Your task to perform on an android device: find which apps use the phone's location Image 0: 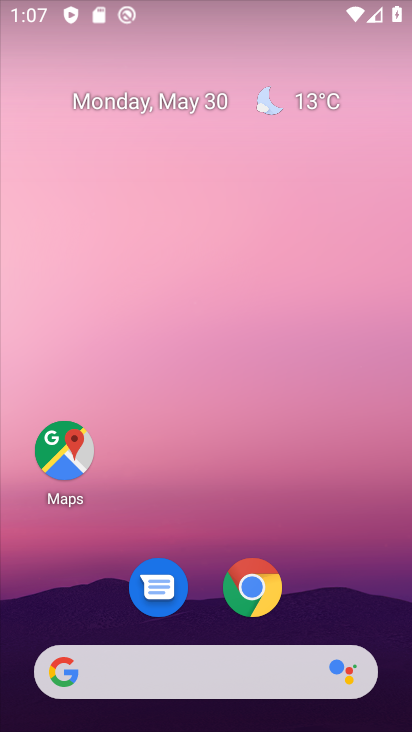
Step 0: drag from (273, 359) to (184, 0)
Your task to perform on an android device: find which apps use the phone's location Image 1: 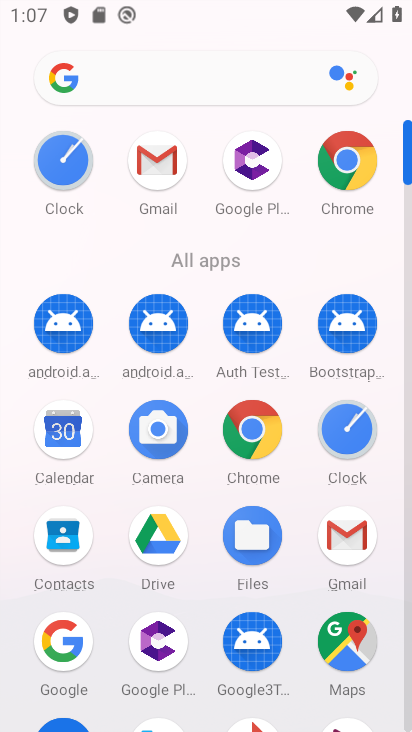
Step 1: drag from (127, 653) to (202, 155)
Your task to perform on an android device: find which apps use the phone's location Image 2: 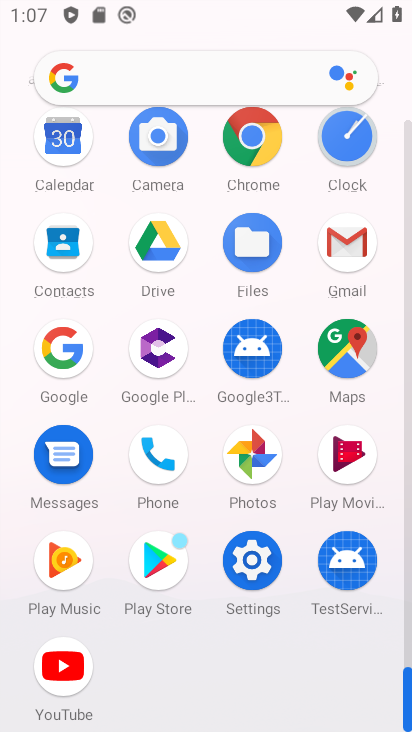
Step 2: click (241, 559)
Your task to perform on an android device: find which apps use the phone's location Image 3: 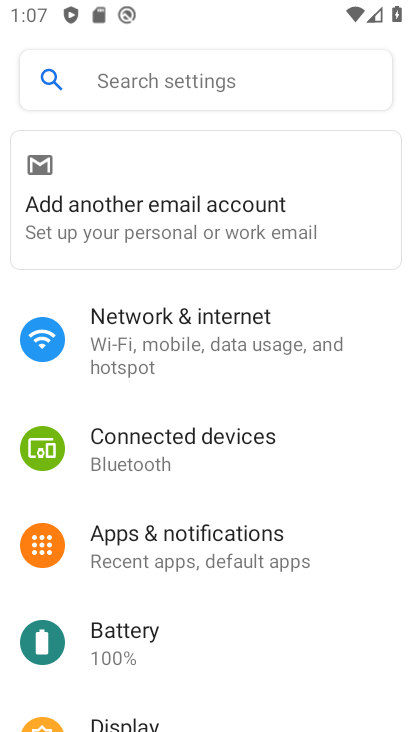
Step 3: drag from (316, 646) to (286, 109)
Your task to perform on an android device: find which apps use the phone's location Image 4: 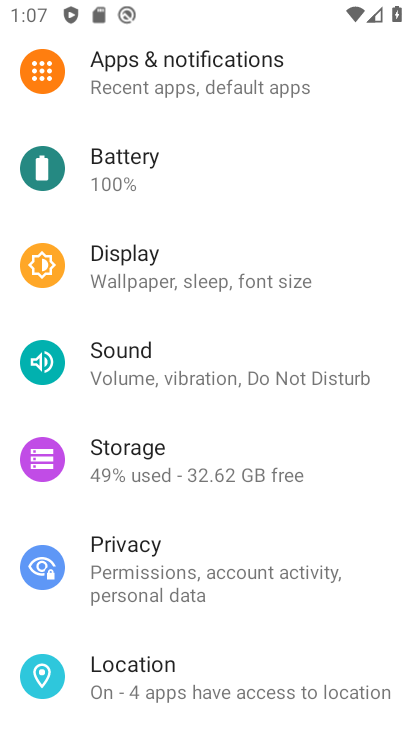
Step 4: click (181, 676)
Your task to perform on an android device: find which apps use the phone's location Image 5: 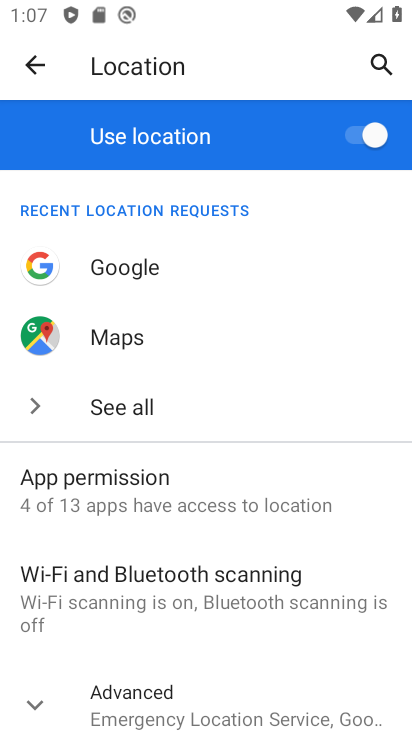
Step 5: click (233, 588)
Your task to perform on an android device: find which apps use the phone's location Image 6: 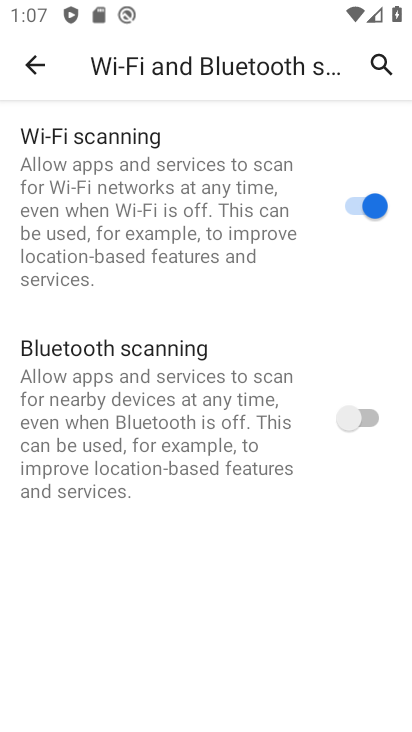
Step 6: click (40, 76)
Your task to perform on an android device: find which apps use the phone's location Image 7: 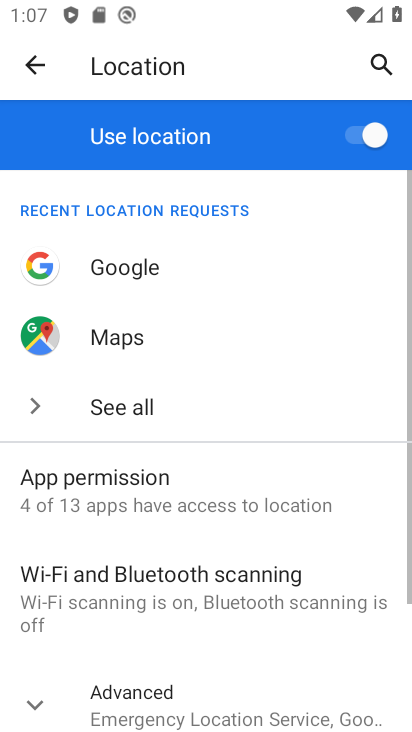
Step 7: click (164, 483)
Your task to perform on an android device: find which apps use the phone's location Image 8: 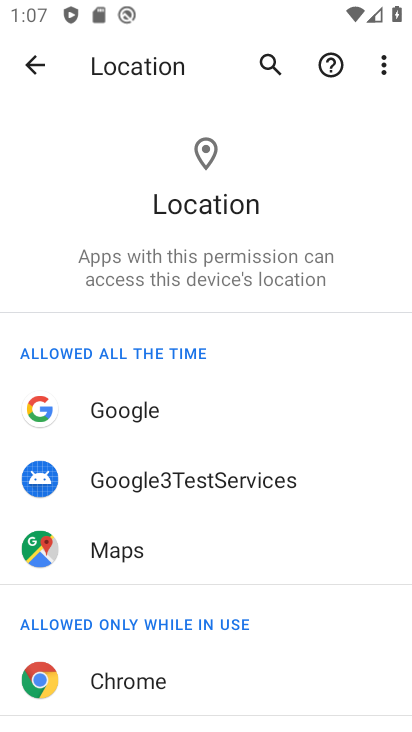
Step 8: task complete